Your task to perform on an android device: move an email to a new category in the gmail app Image 0: 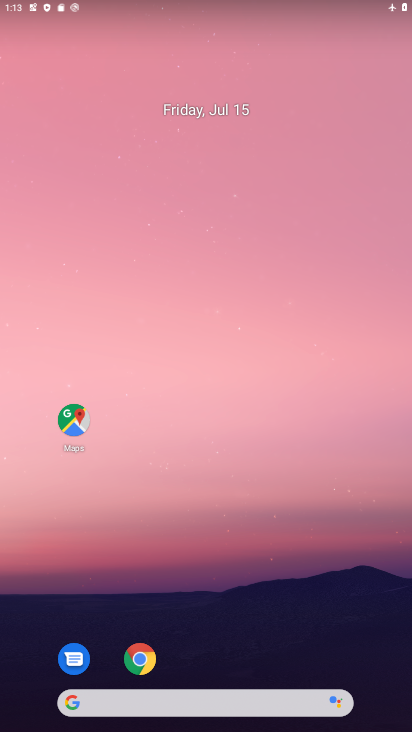
Step 0: drag from (218, 666) to (218, 98)
Your task to perform on an android device: move an email to a new category in the gmail app Image 1: 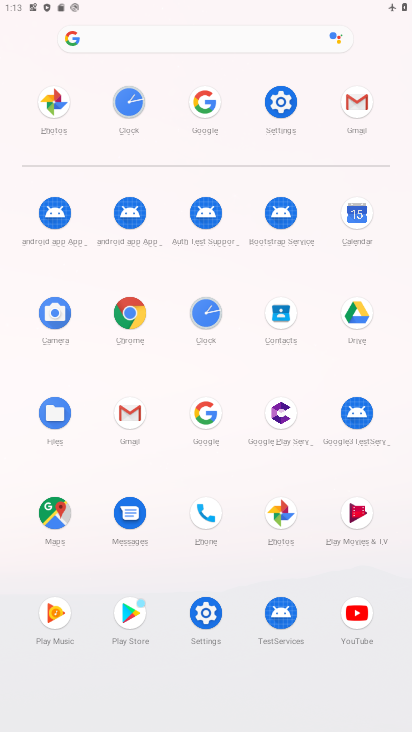
Step 1: click (358, 109)
Your task to perform on an android device: move an email to a new category in the gmail app Image 2: 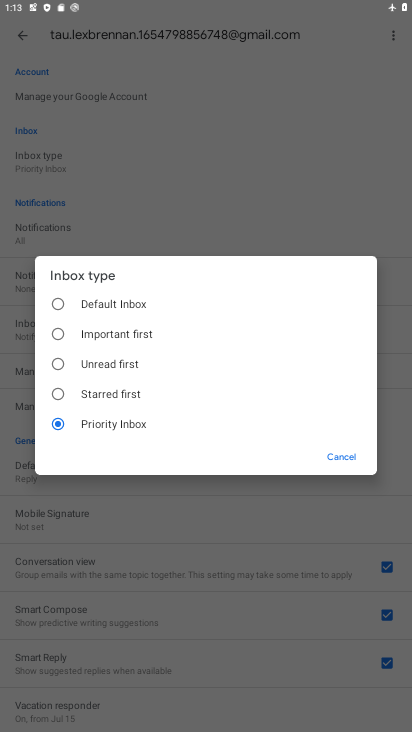
Step 2: click (325, 452)
Your task to perform on an android device: move an email to a new category in the gmail app Image 3: 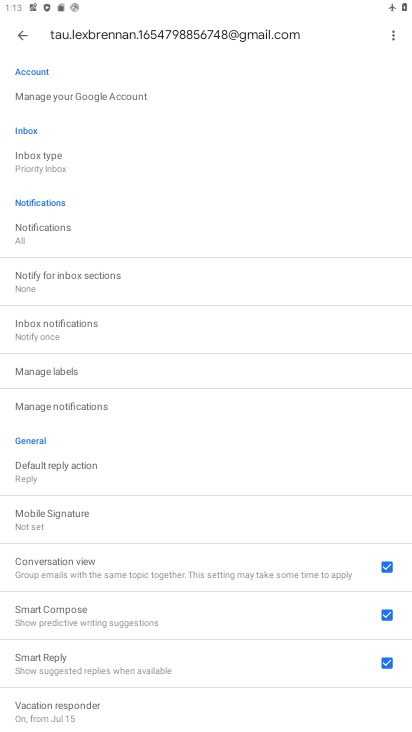
Step 3: click (22, 38)
Your task to perform on an android device: move an email to a new category in the gmail app Image 4: 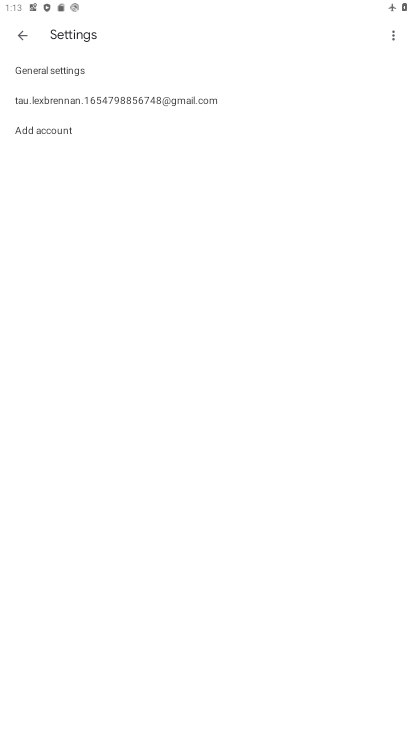
Step 4: click (22, 38)
Your task to perform on an android device: move an email to a new category in the gmail app Image 5: 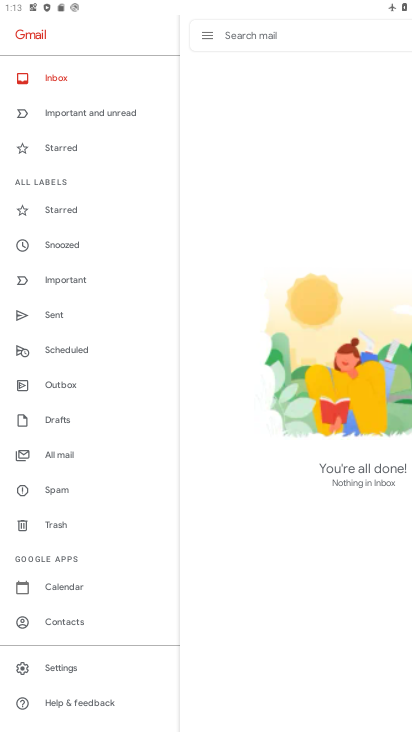
Step 5: click (84, 461)
Your task to perform on an android device: move an email to a new category in the gmail app Image 6: 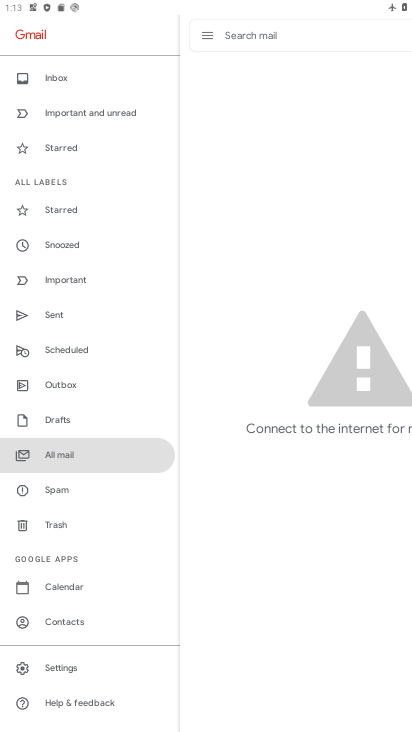
Step 6: task complete